Your task to perform on an android device: Check the weather Image 0: 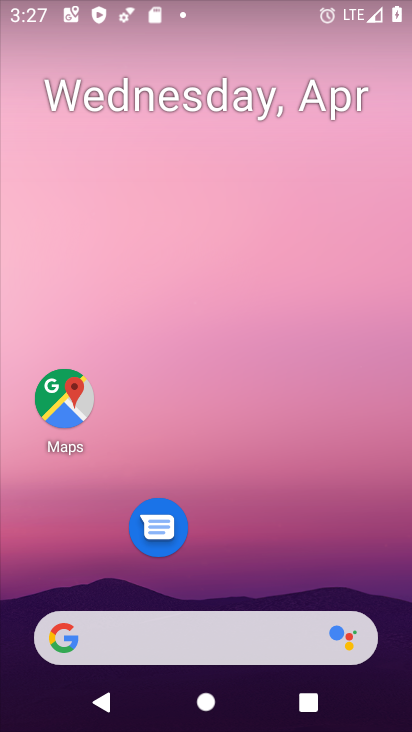
Step 0: drag from (227, 447) to (246, 137)
Your task to perform on an android device: Check the weather Image 1: 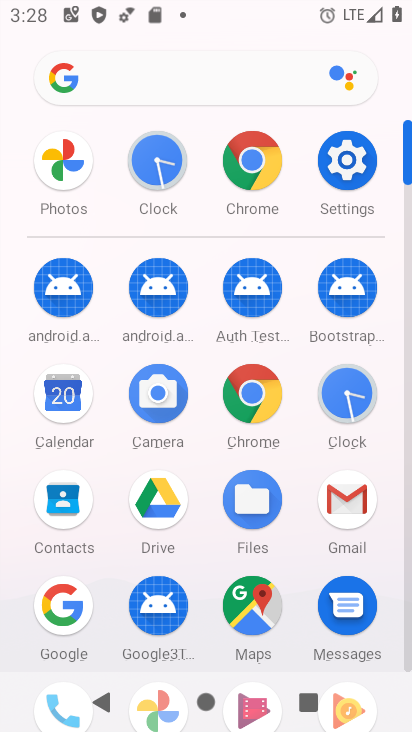
Step 1: click (254, 180)
Your task to perform on an android device: Check the weather Image 2: 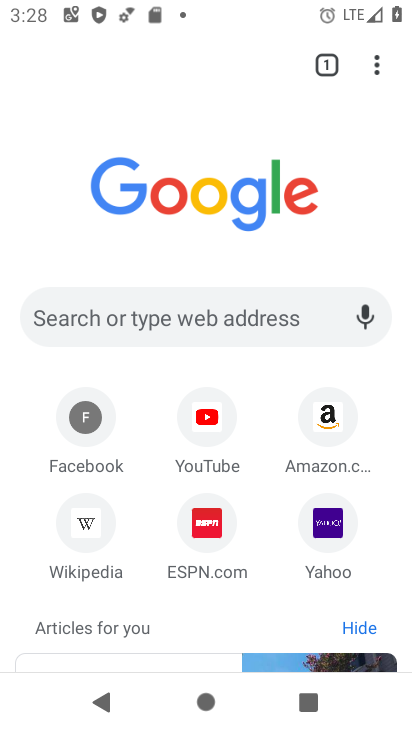
Step 2: click (194, 305)
Your task to perform on an android device: Check the weather Image 3: 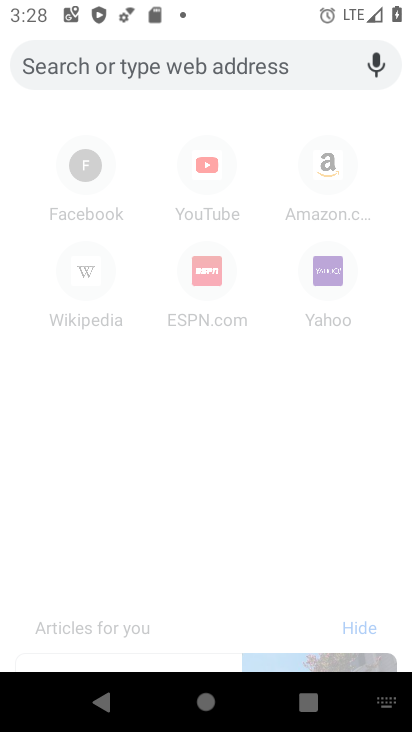
Step 3: type "weather"
Your task to perform on an android device: Check the weather Image 4: 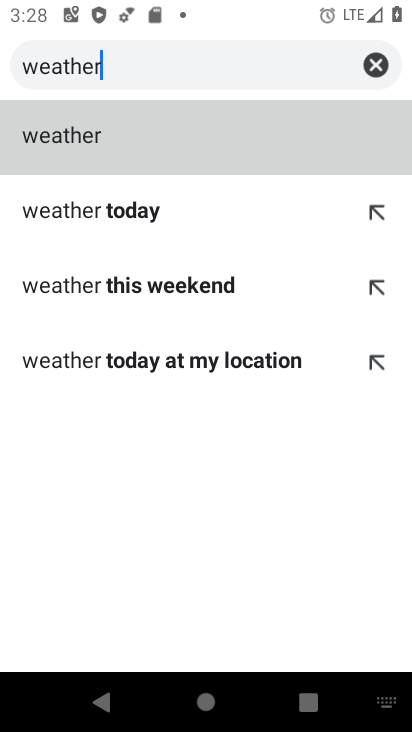
Step 4: click (199, 132)
Your task to perform on an android device: Check the weather Image 5: 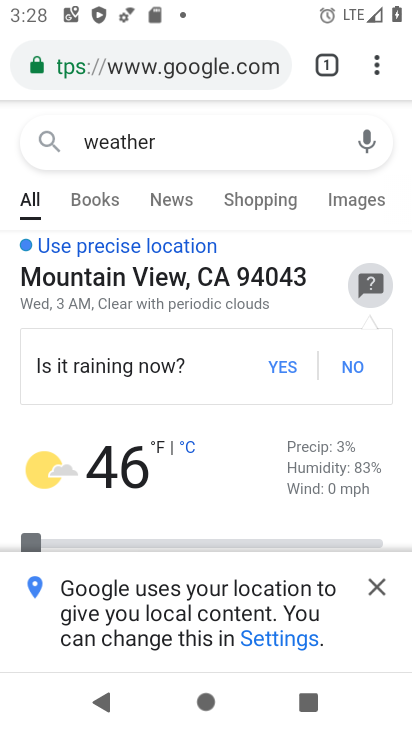
Step 5: task complete